Your task to perform on an android device: check out phone information Image 0: 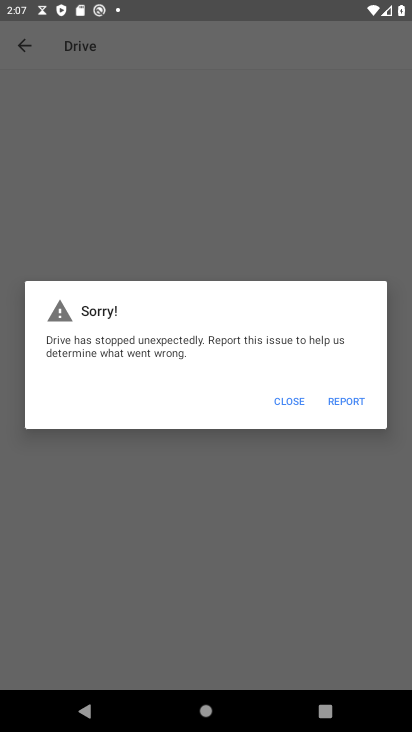
Step 0: press home button
Your task to perform on an android device: check out phone information Image 1: 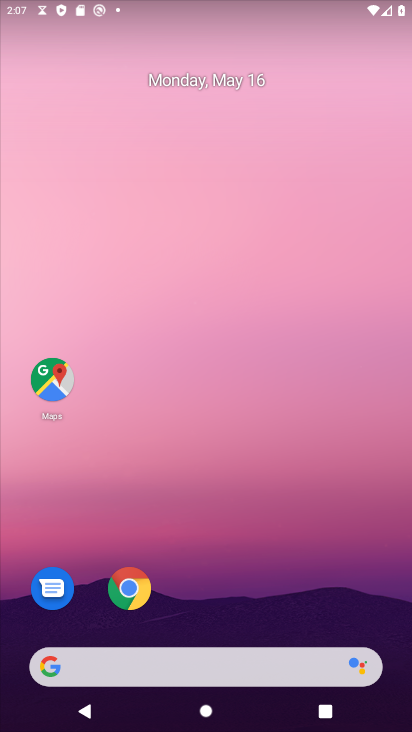
Step 1: drag from (237, 722) to (243, 200)
Your task to perform on an android device: check out phone information Image 2: 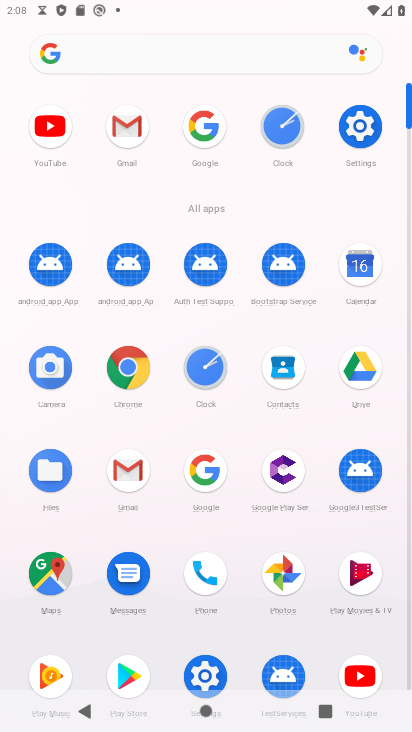
Step 2: click (365, 126)
Your task to perform on an android device: check out phone information Image 3: 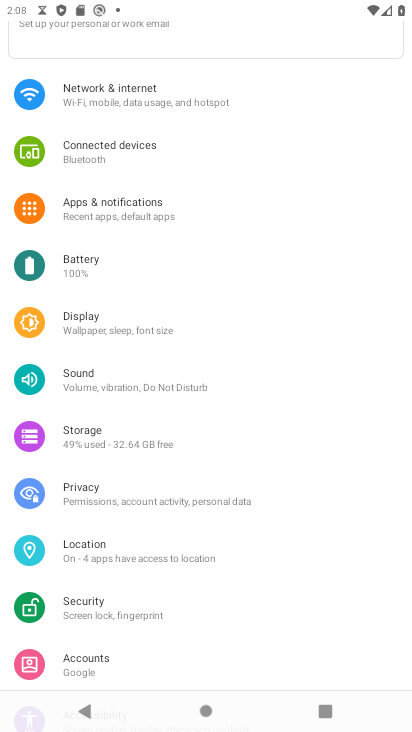
Step 3: drag from (179, 626) to (179, 165)
Your task to perform on an android device: check out phone information Image 4: 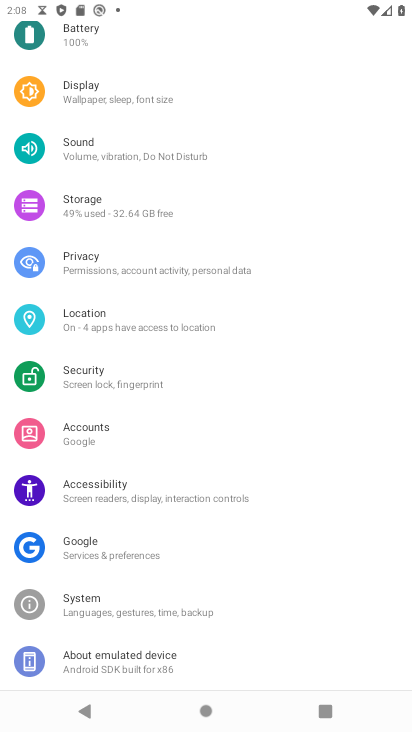
Step 4: drag from (145, 606) to (153, 271)
Your task to perform on an android device: check out phone information Image 5: 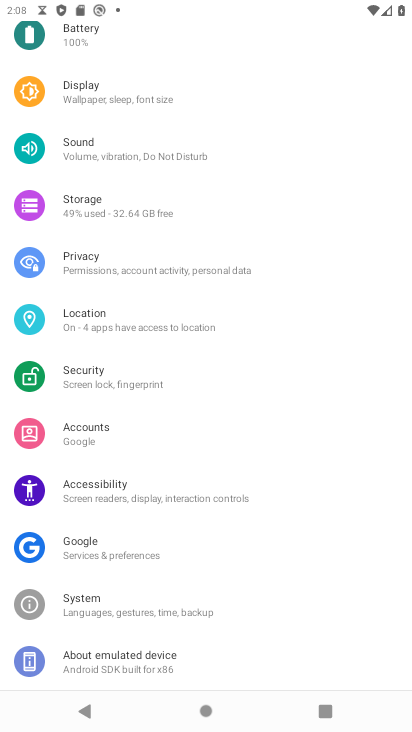
Step 5: click (128, 657)
Your task to perform on an android device: check out phone information Image 6: 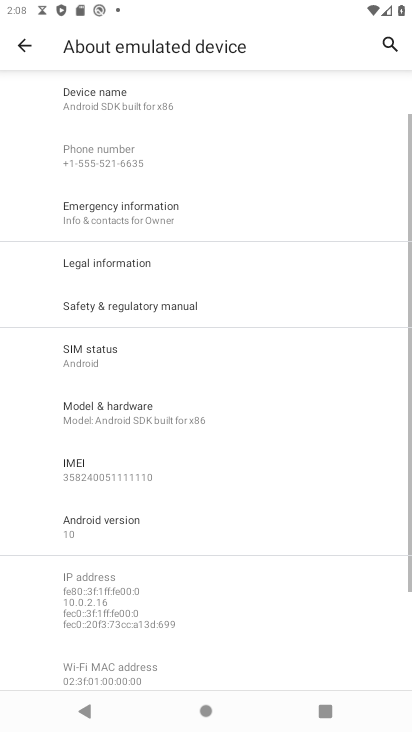
Step 6: task complete